Your task to perform on an android device: Open the web browser Image 0: 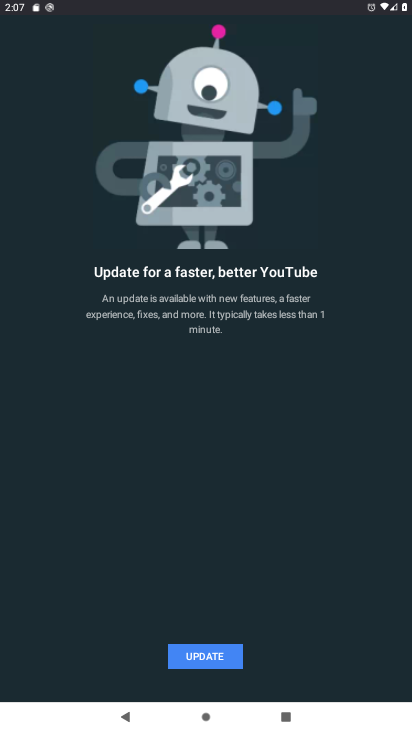
Step 0: press home button
Your task to perform on an android device: Open the web browser Image 1: 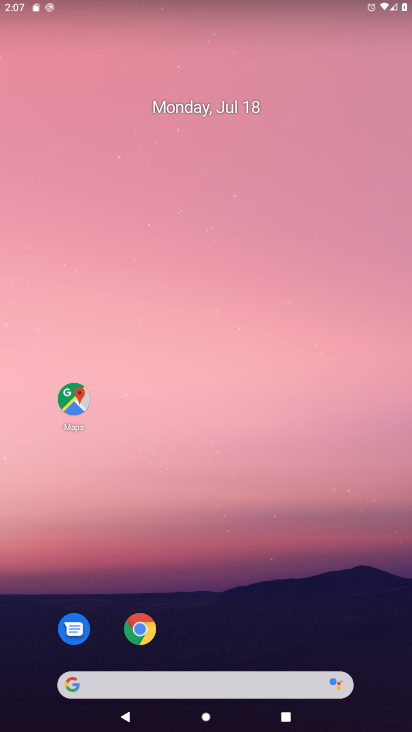
Step 1: click (140, 624)
Your task to perform on an android device: Open the web browser Image 2: 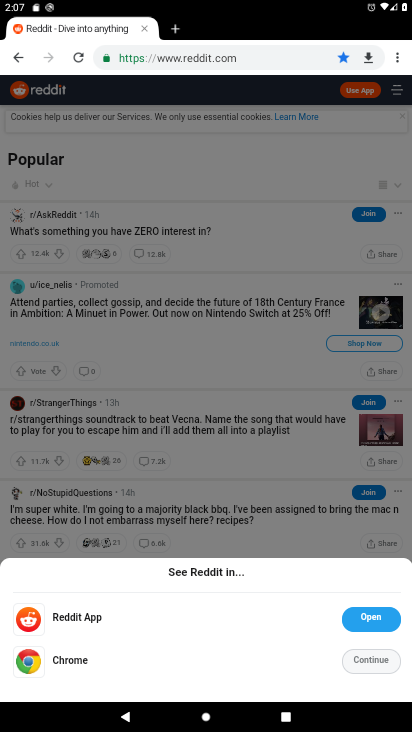
Step 2: task complete